Your task to perform on an android device: uninstall "Truecaller" Image 0: 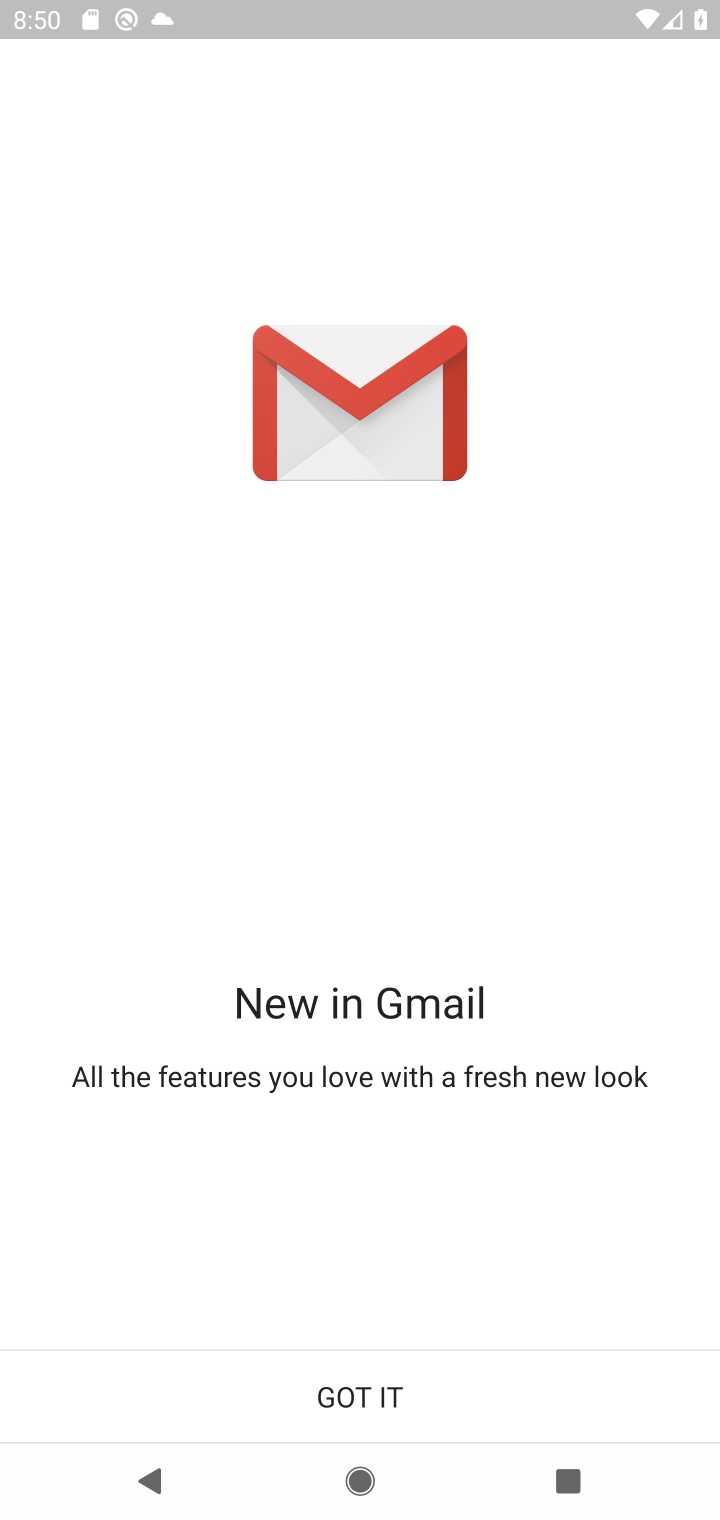
Step 0: press home button
Your task to perform on an android device: uninstall "Truecaller" Image 1: 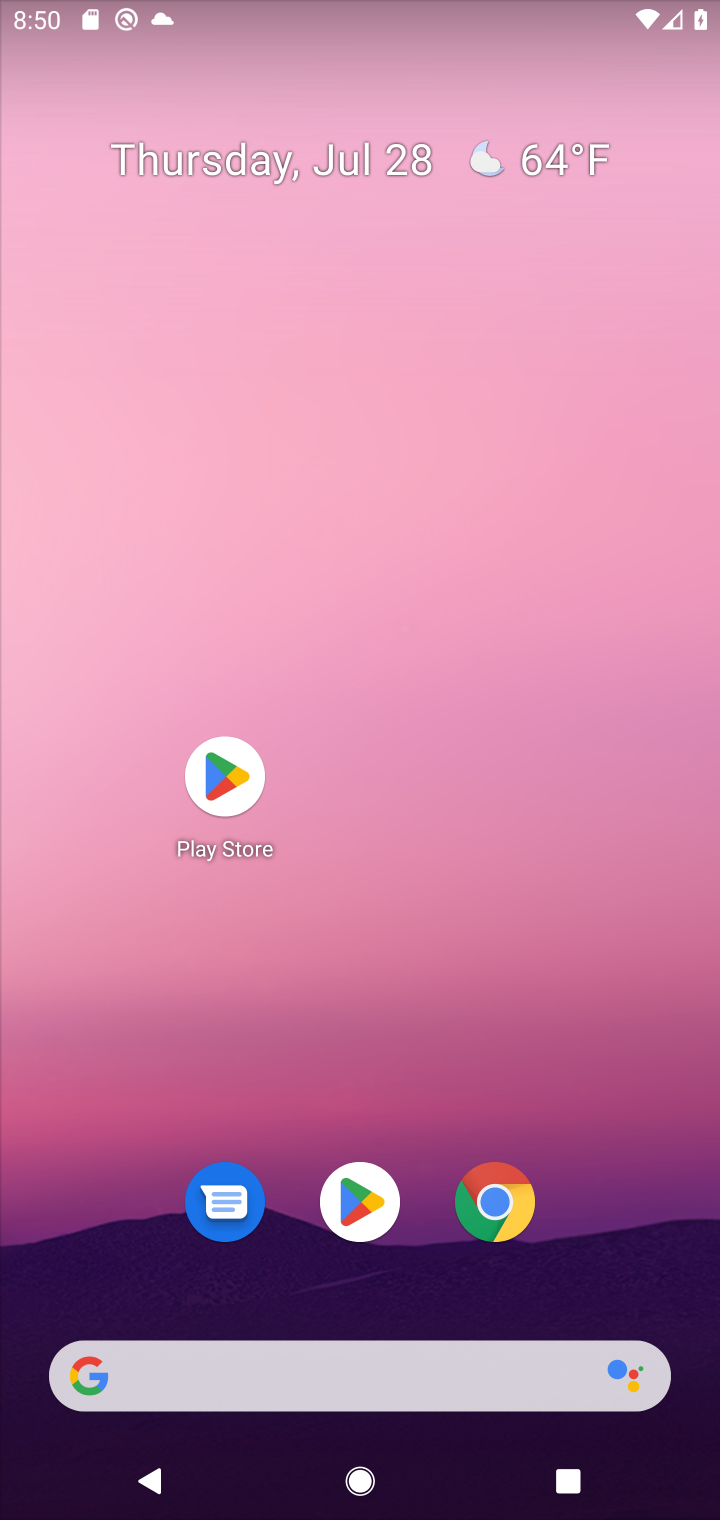
Step 1: click (219, 788)
Your task to perform on an android device: uninstall "Truecaller" Image 2: 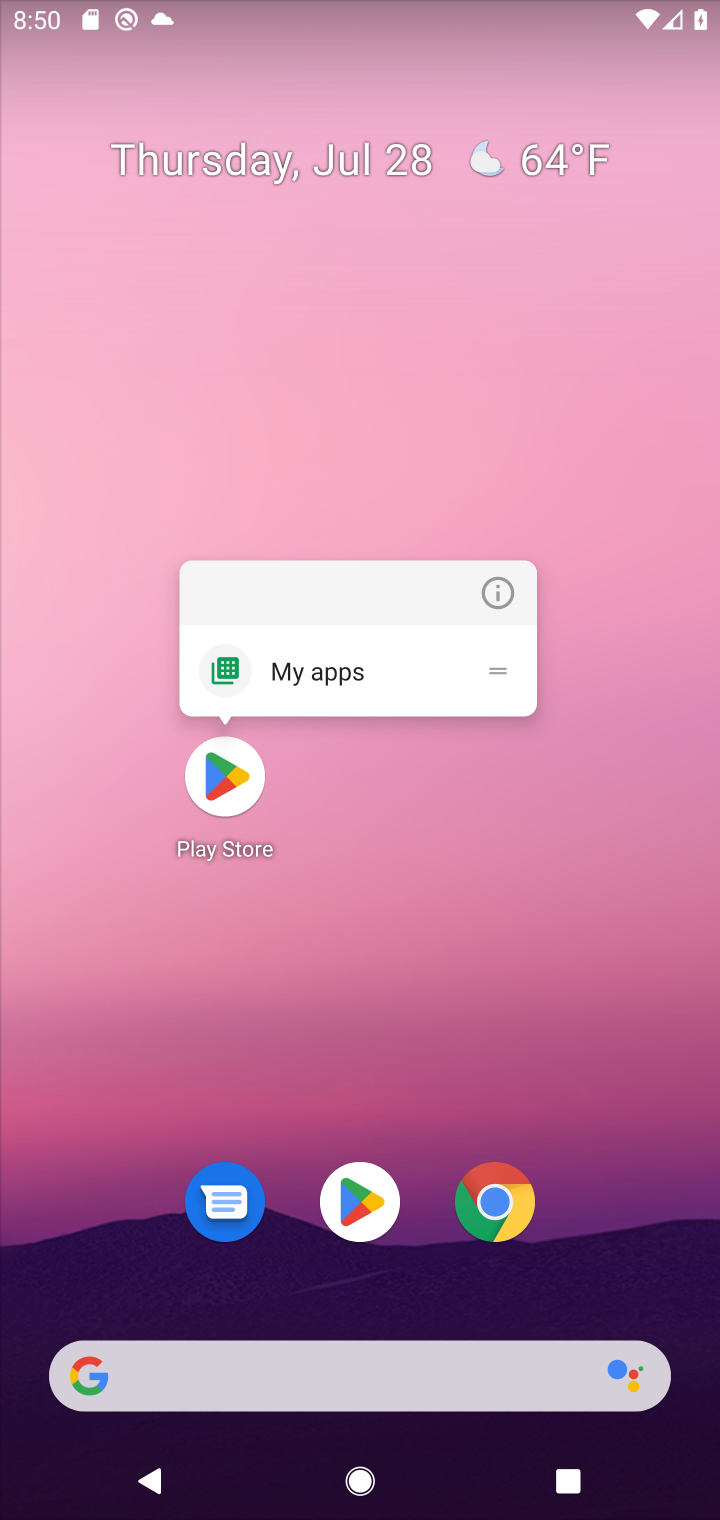
Step 2: click (208, 748)
Your task to perform on an android device: uninstall "Truecaller" Image 3: 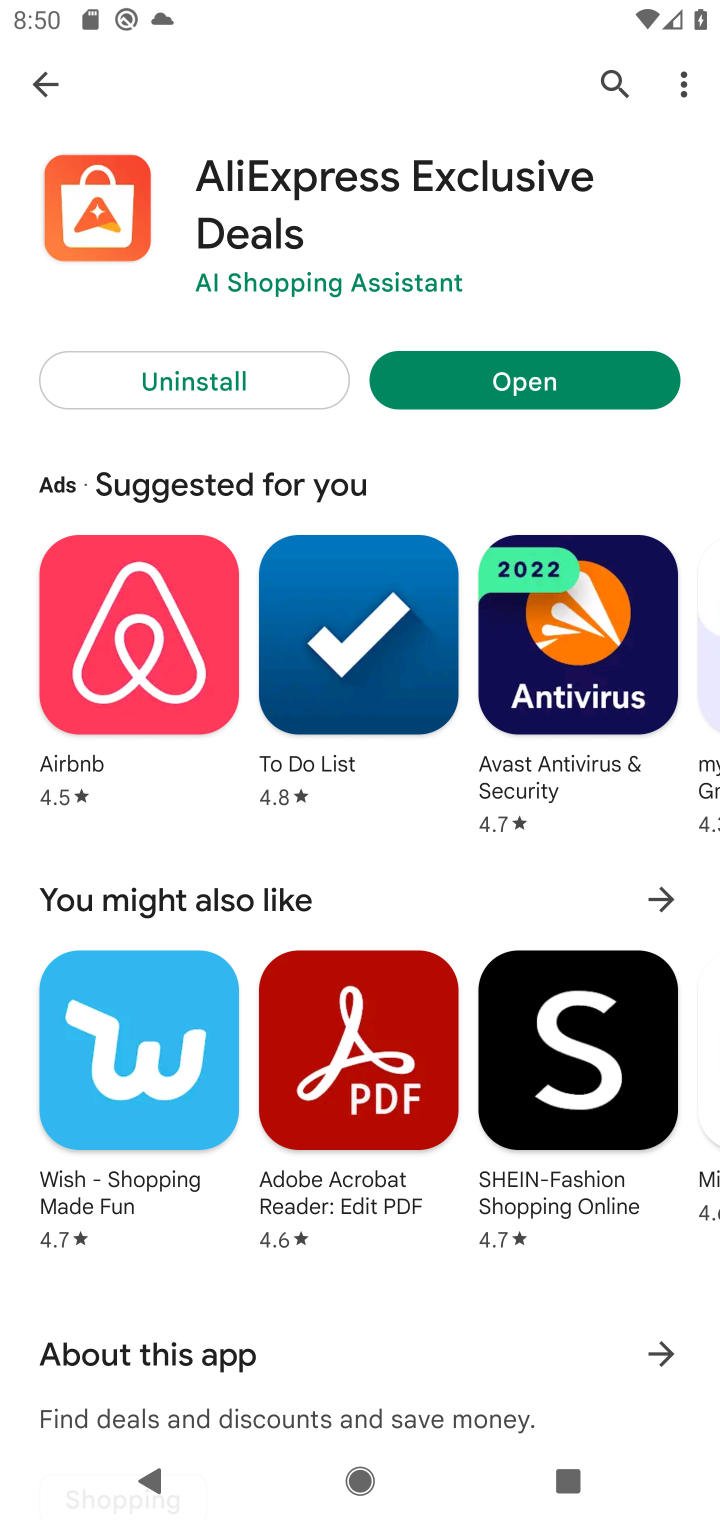
Step 3: click (227, 796)
Your task to perform on an android device: uninstall "Truecaller" Image 4: 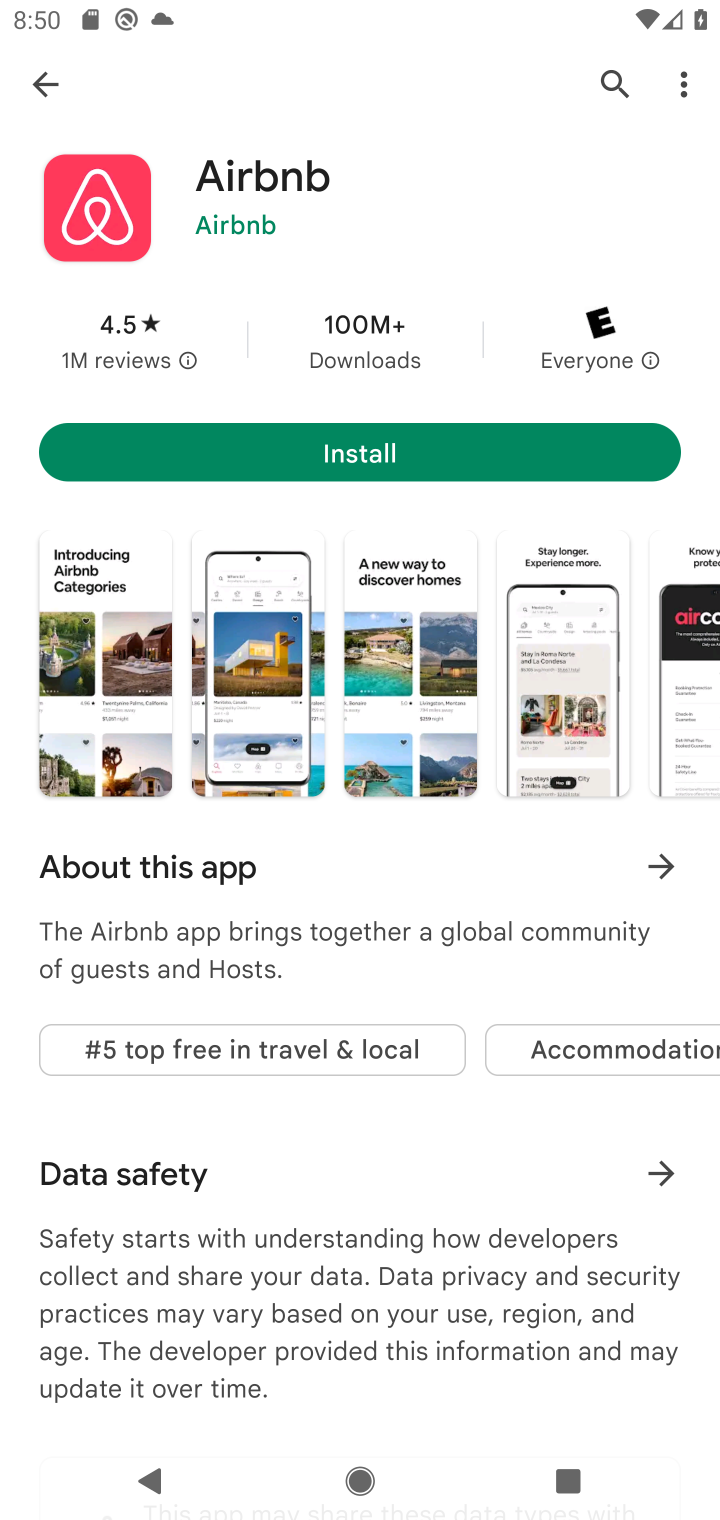
Step 4: click (43, 80)
Your task to perform on an android device: uninstall "Truecaller" Image 5: 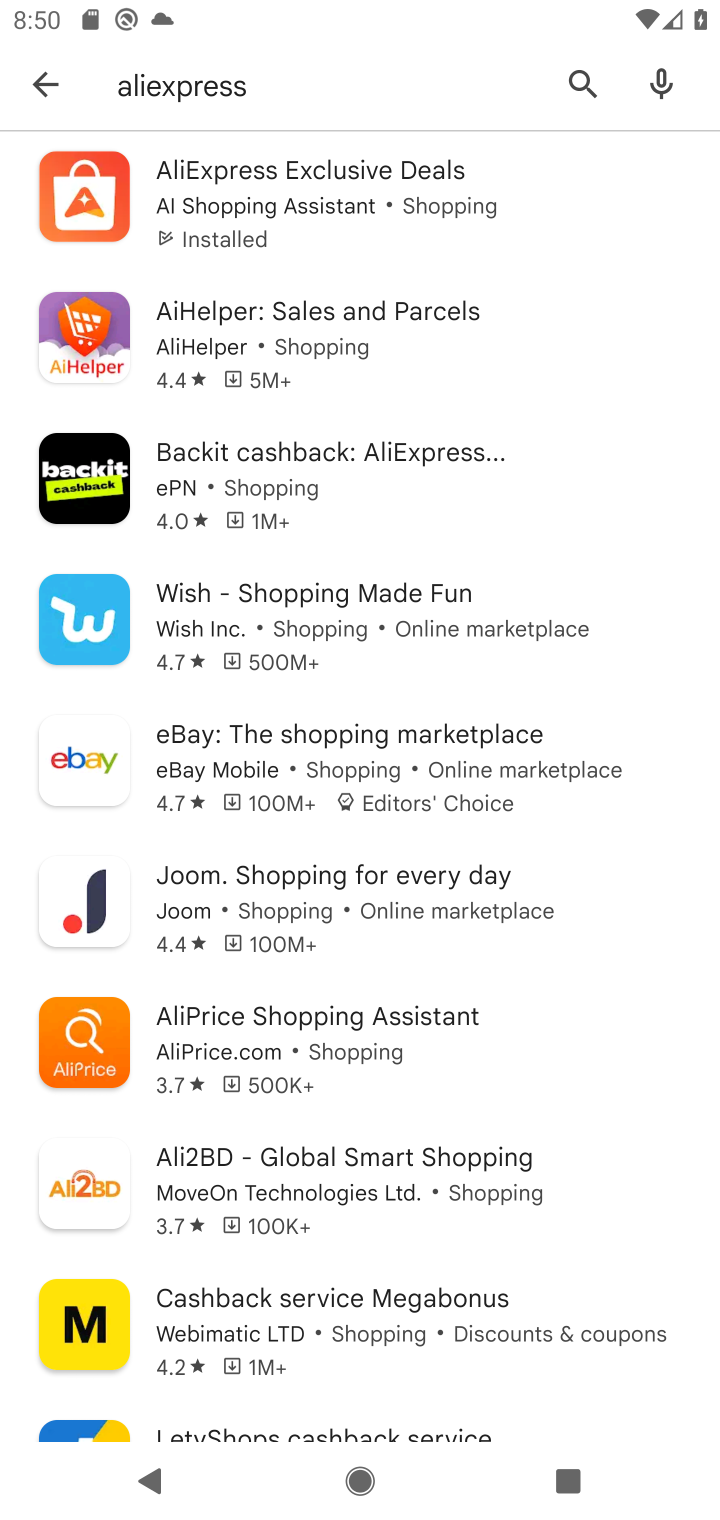
Step 5: click (585, 74)
Your task to perform on an android device: uninstall "Truecaller" Image 6: 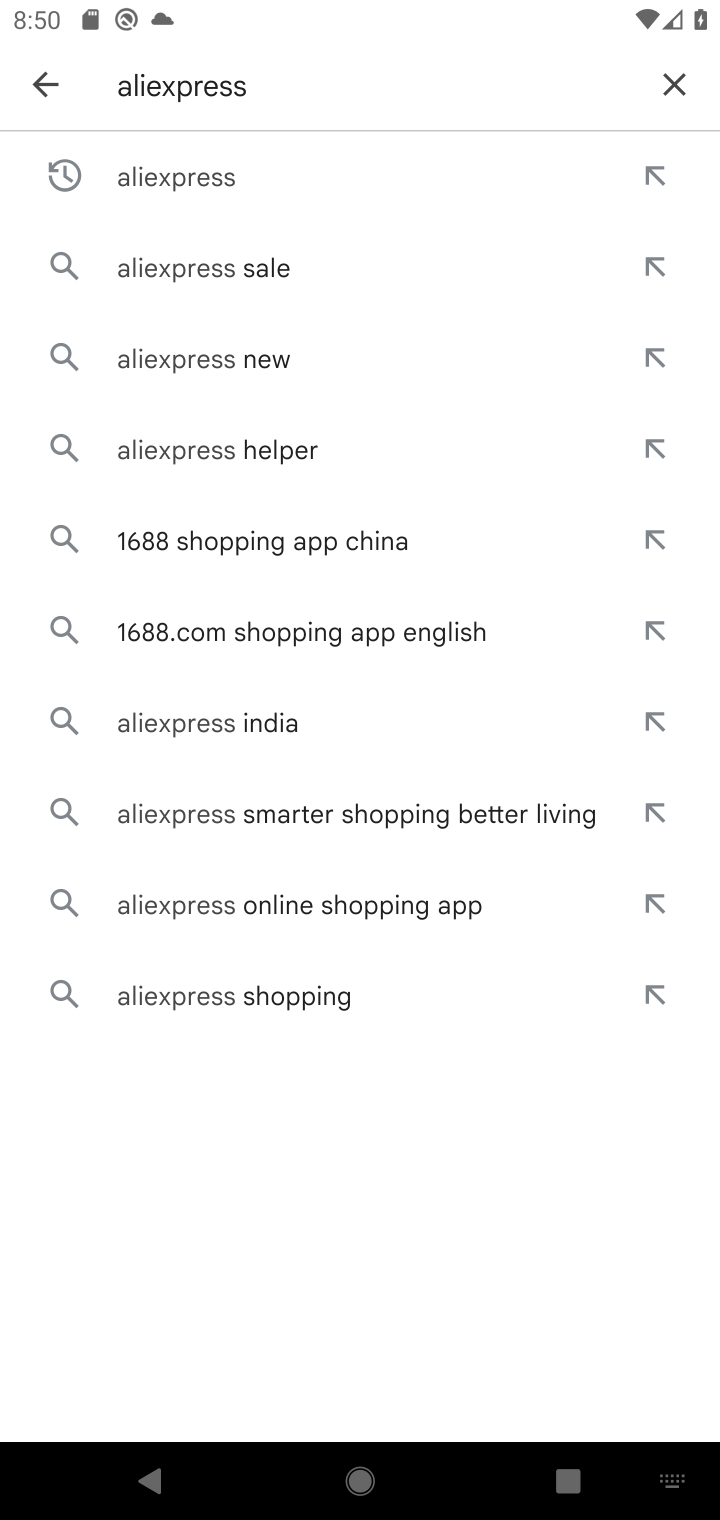
Step 6: click (673, 78)
Your task to perform on an android device: uninstall "Truecaller" Image 7: 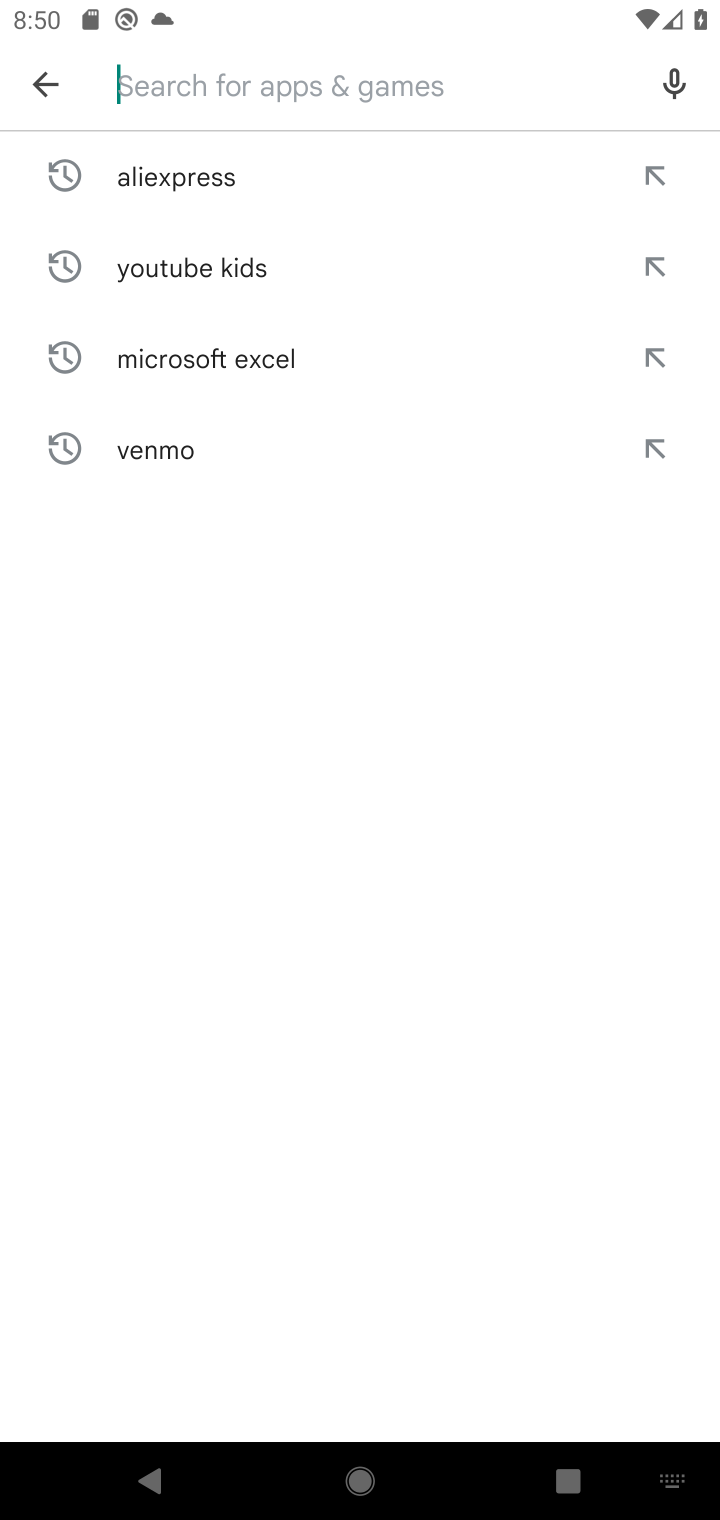
Step 7: type "truecaller"
Your task to perform on an android device: uninstall "Truecaller" Image 8: 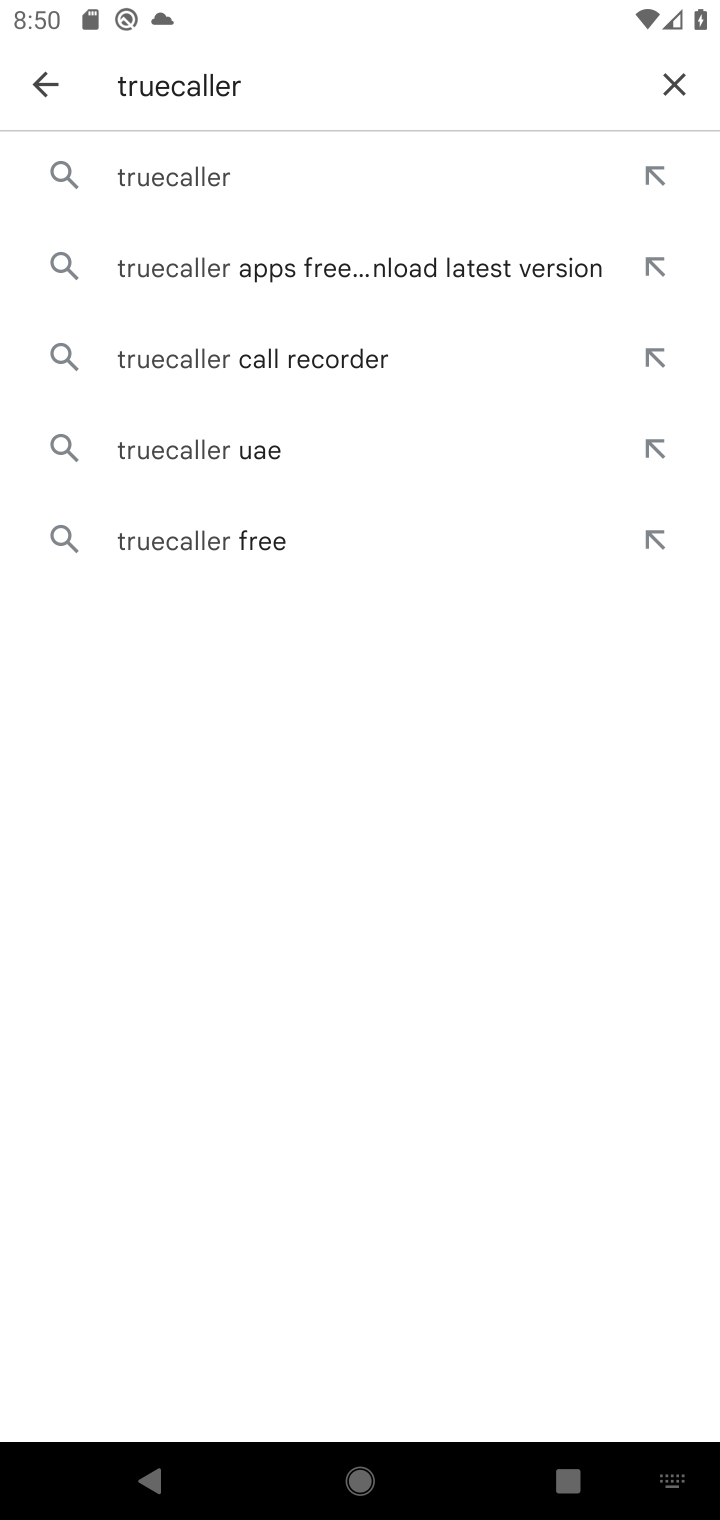
Step 8: click (179, 153)
Your task to perform on an android device: uninstall "Truecaller" Image 9: 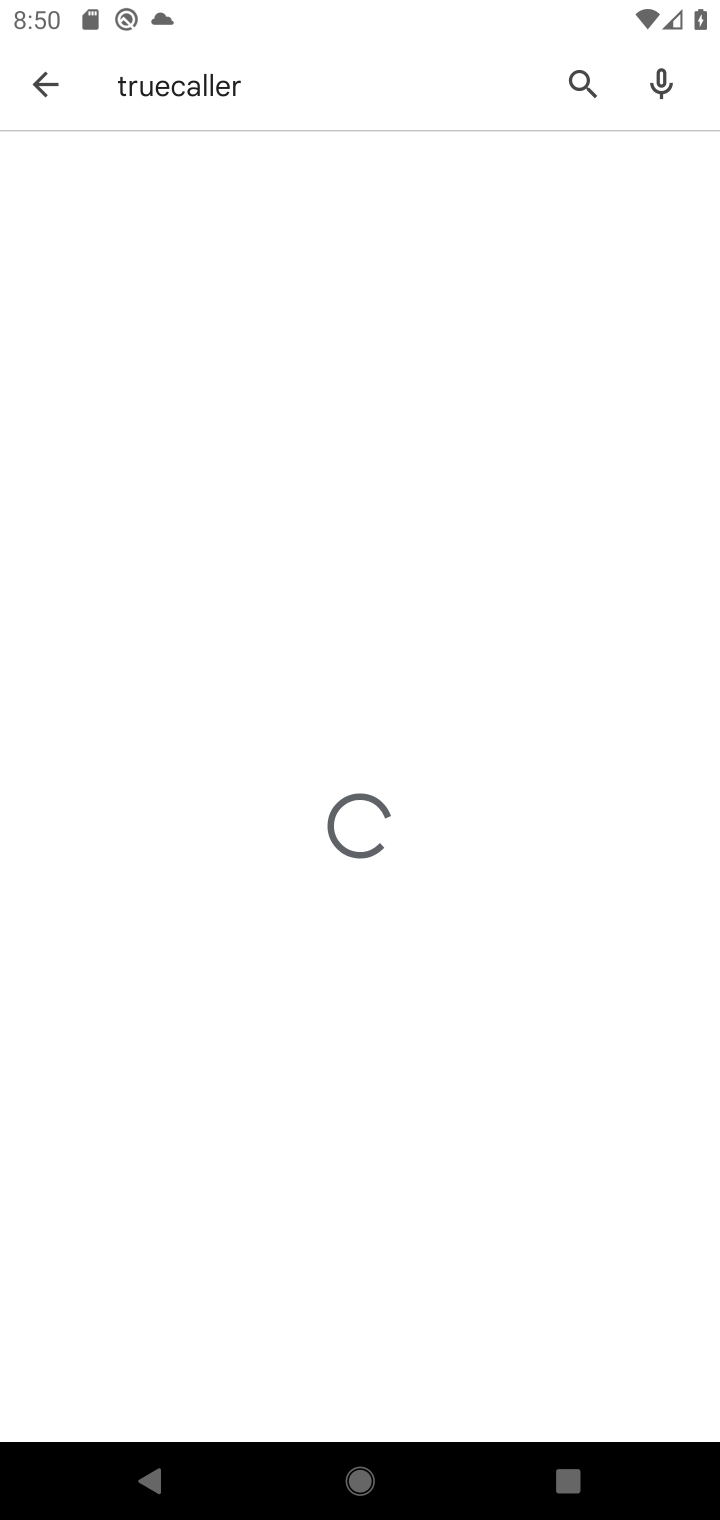
Step 9: click (179, 153)
Your task to perform on an android device: uninstall "Truecaller" Image 10: 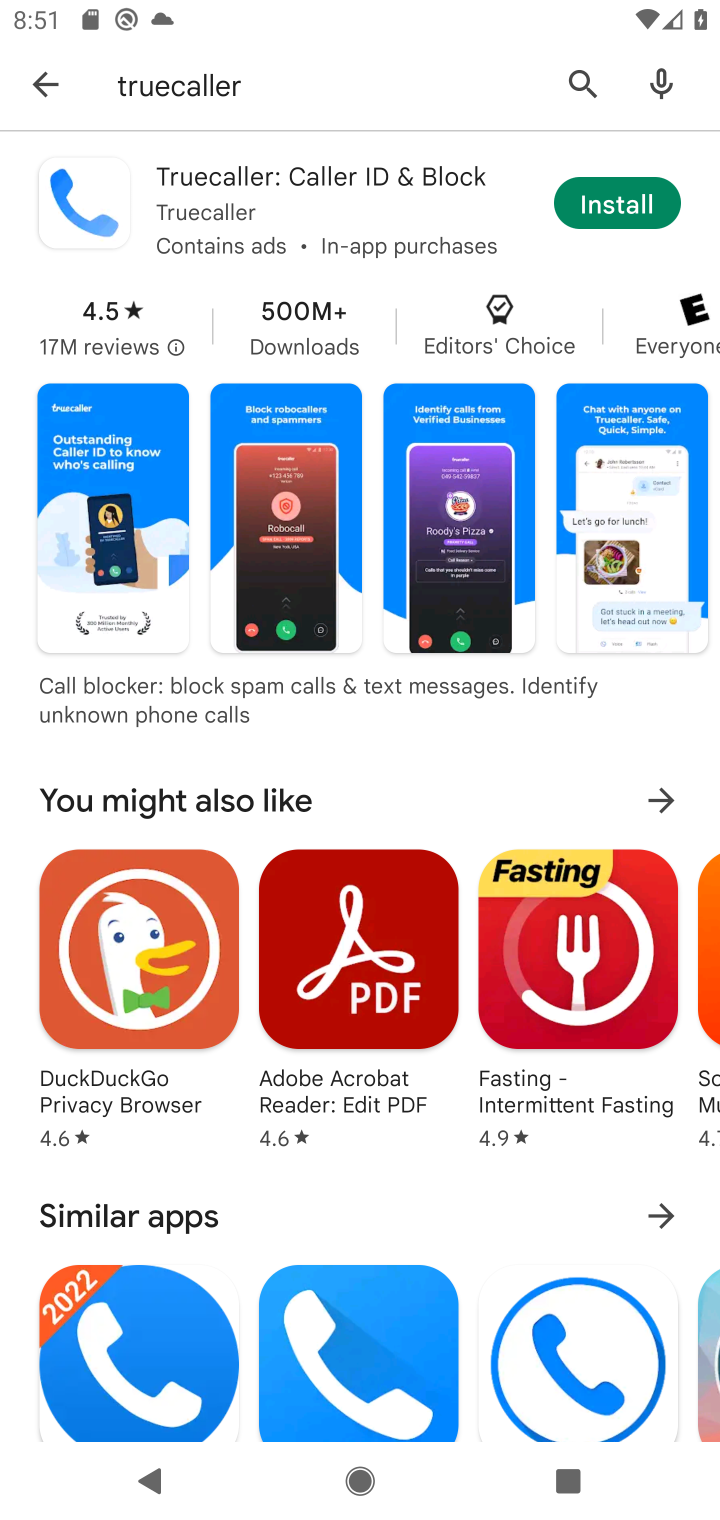
Step 10: task complete